Your task to perform on an android device: change alarm snooze length Image 0: 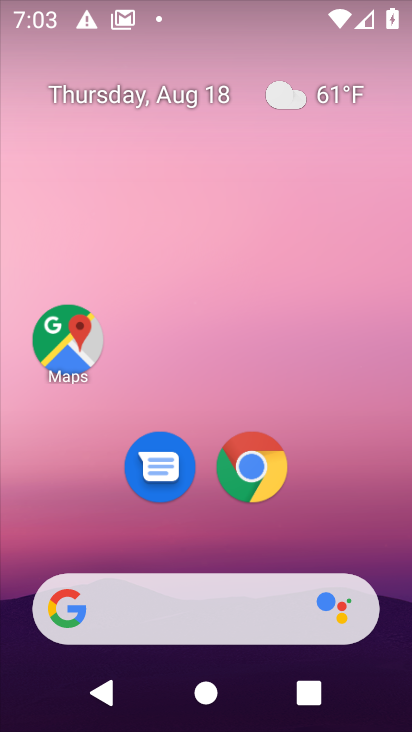
Step 0: drag from (268, 384) to (301, 130)
Your task to perform on an android device: change alarm snooze length Image 1: 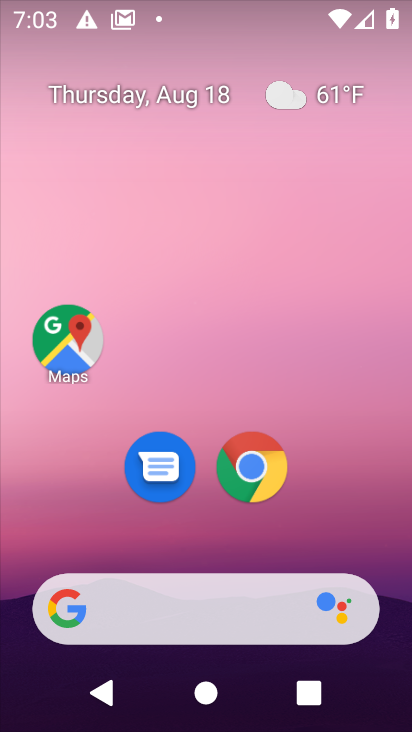
Step 1: task complete